Your task to perform on an android device: turn off airplane mode Image 0: 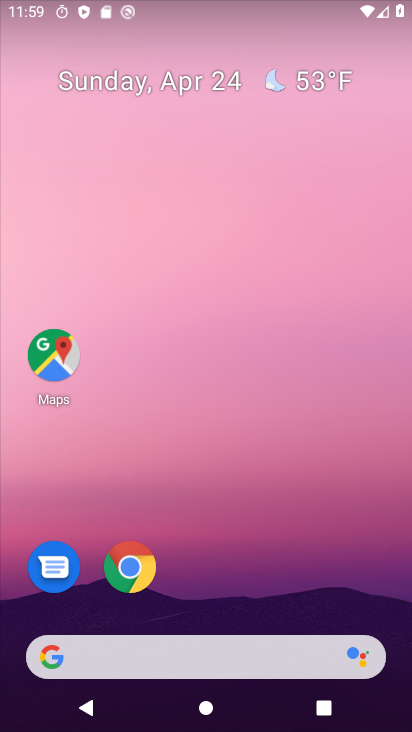
Step 0: drag from (330, 507) to (358, 4)
Your task to perform on an android device: turn off airplane mode Image 1: 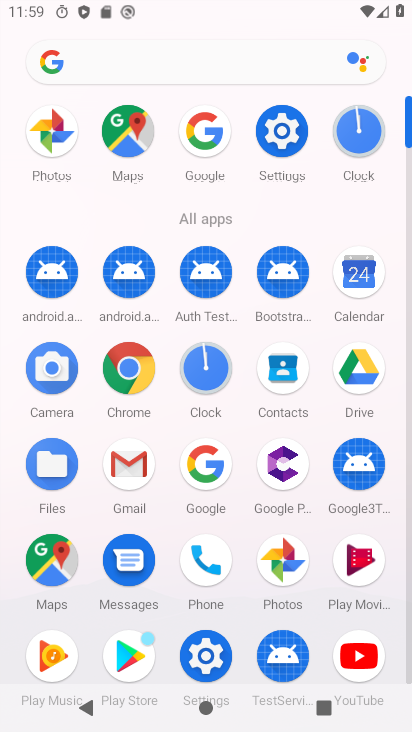
Step 1: click (274, 141)
Your task to perform on an android device: turn off airplane mode Image 2: 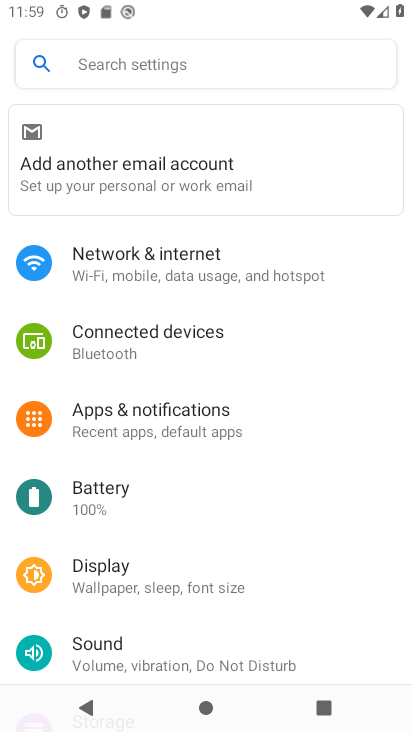
Step 2: click (263, 290)
Your task to perform on an android device: turn off airplane mode Image 3: 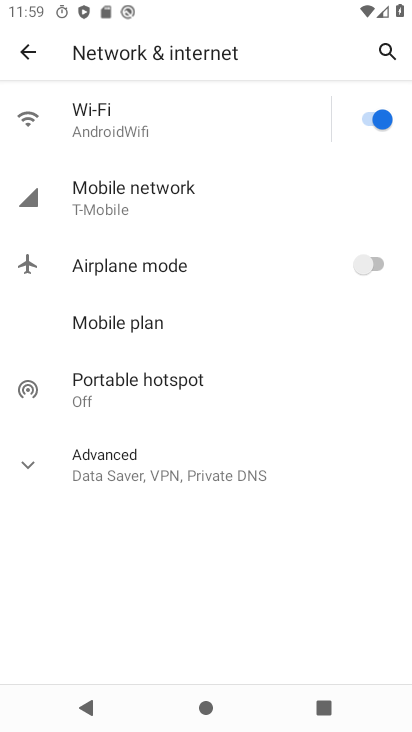
Step 3: task complete